Your task to perform on an android device: turn off notifications in google photos Image 0: 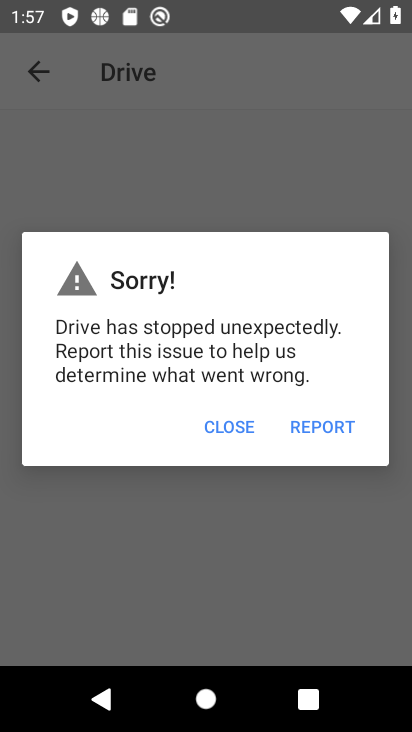
Step 0: press home button
Your task to perform on an android device: turn off notifications in google photos Image 1: 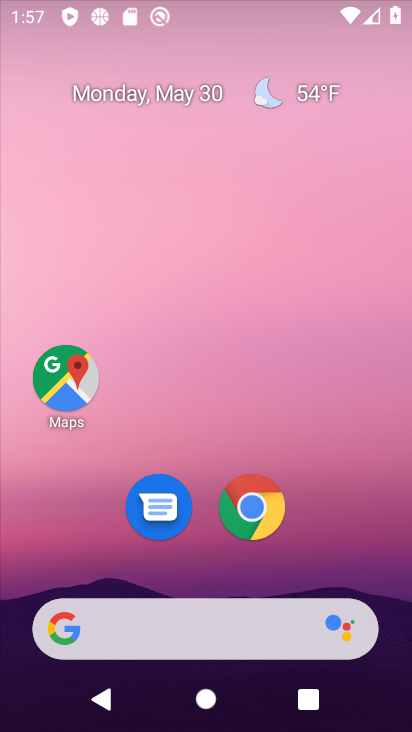
Step 1: drag from (378, 651) to (260, 79)
Your task to perform on an android device: turn off notifications in google photos Image 2: 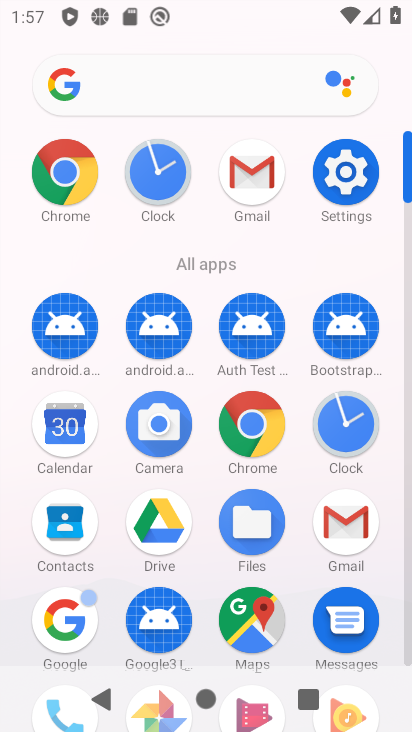
Step 2: drag from (211, 600) to (232, 151)
Your task to perform on an android device: turn off notifications in google photos Image 3: 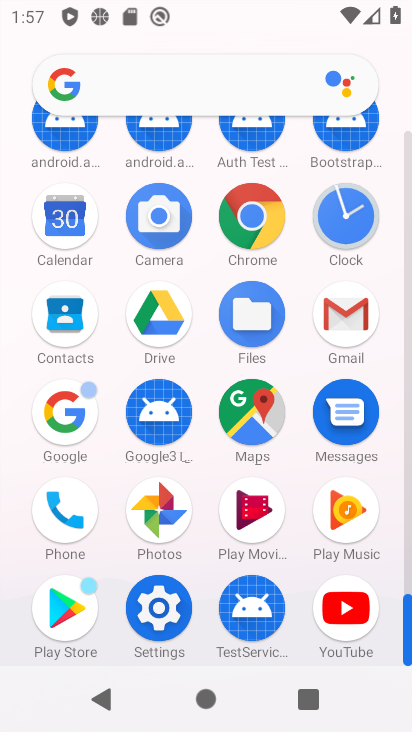
Step 3: click (150, 509)
Your task to perform on an android device: turn off notifications in google photos Image 4: 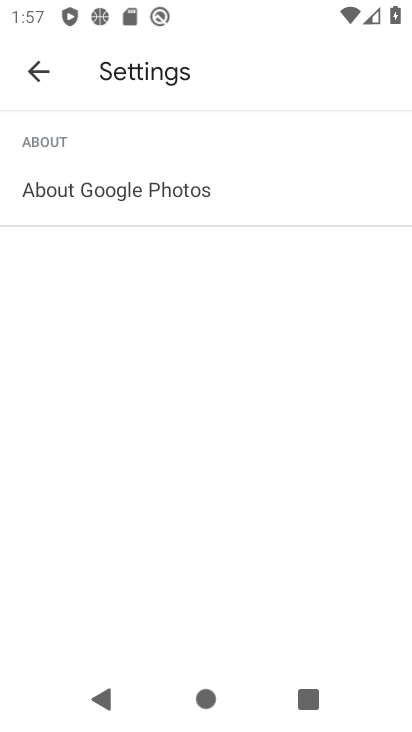
Step 4: press back button
Your task to perform on an android device: turn off notifications in google photos Image 5: 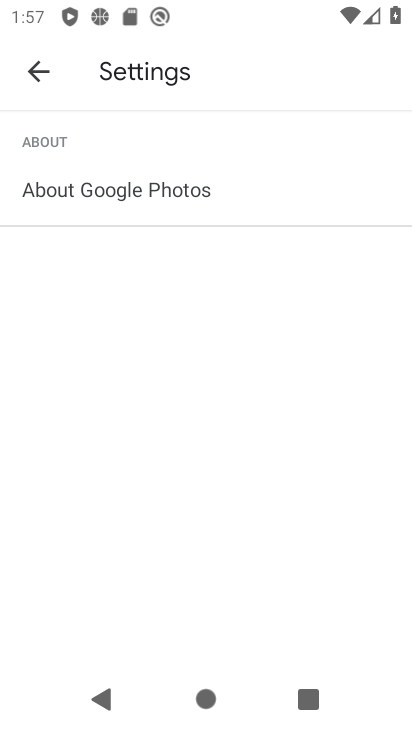
Step 5: press back button
Your task to perform on an android device: turn off notifications in google photos Image 6: 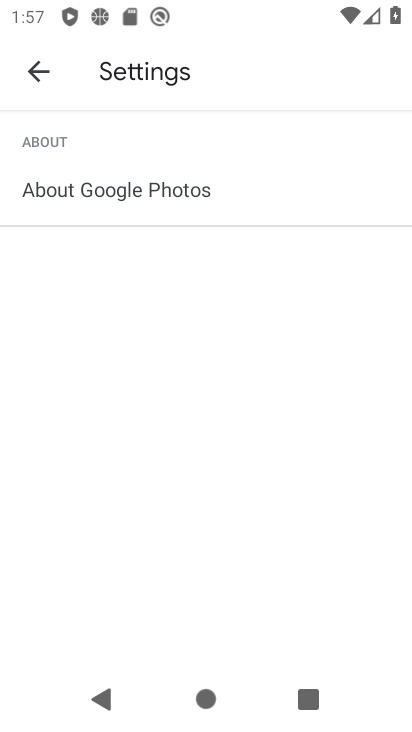
Step 6: press back button
Your task to perform on an android device: turn off notifications in google photos Image 7: 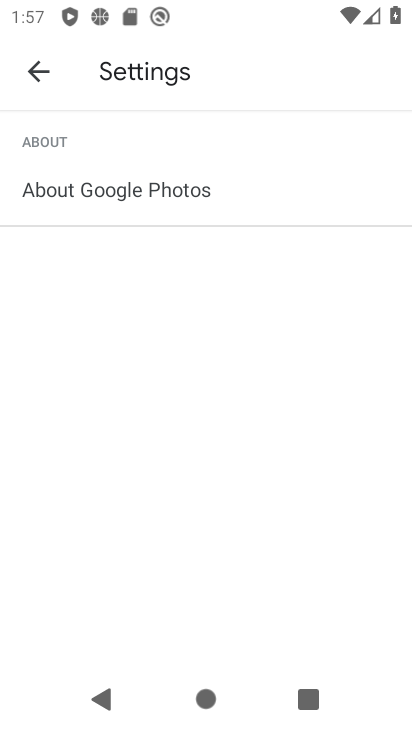
Step 7: press back button
Your task to perform on an android device: turn off notifications in google photos Image 8: 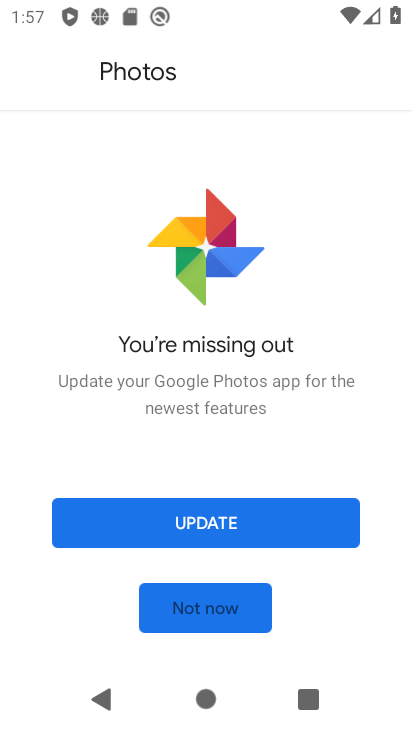
Step 8: click (51, 78)
Your task to perform on an android device: turn off notifications in google photos Image 9: 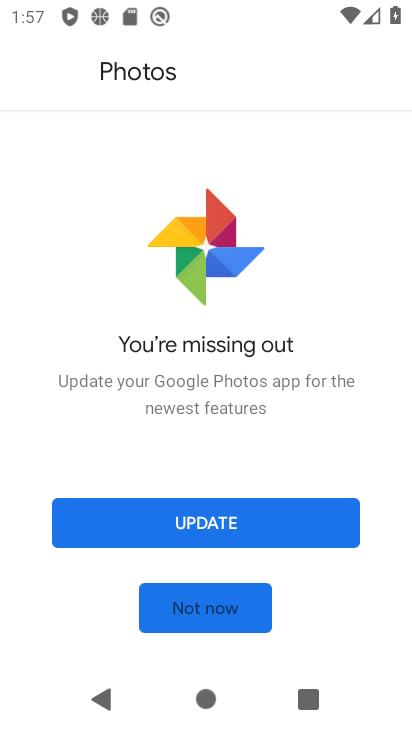
Step 9: click (141, 534)
Your task to perform on an android device: turn off notifications in google photos Image 10: 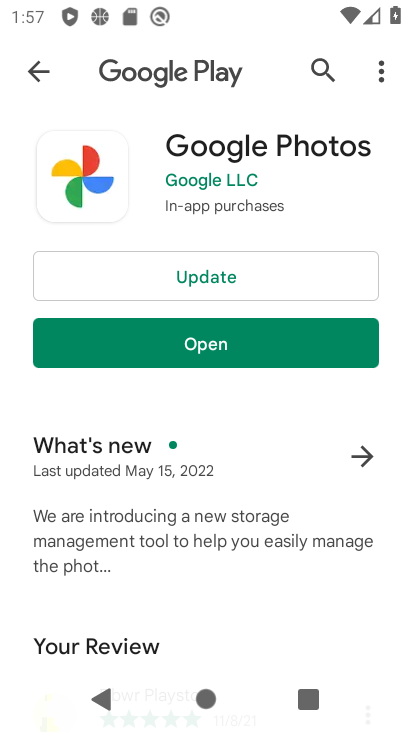
Step 10: click (258, 260)
Your task to perform on an android device: turn off notifications in google photos Image 11: 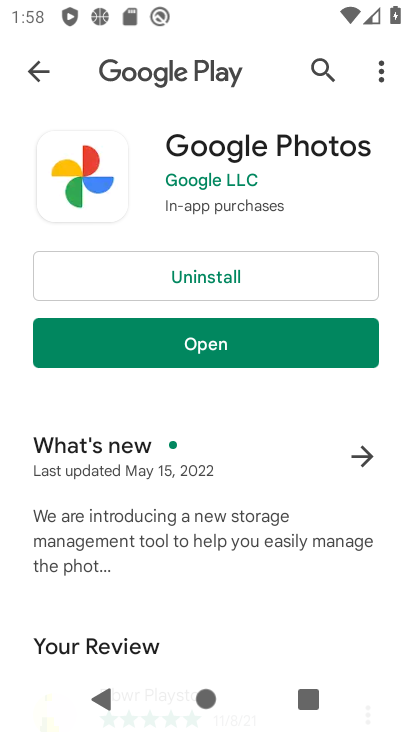
Step 11: click (279, 336)
Your task to perform on an android device: turn off notifications in google photos Image 12: 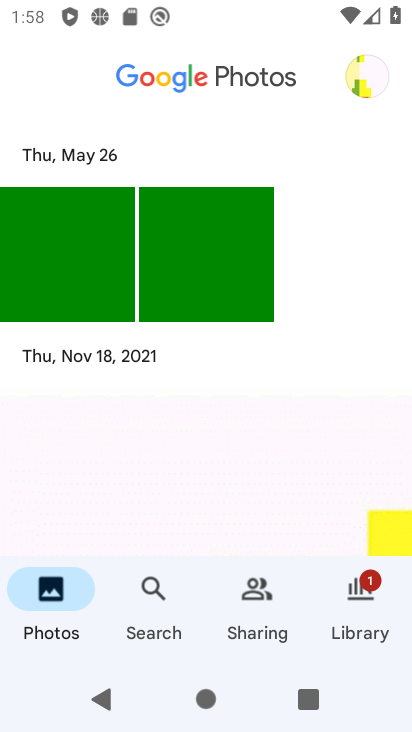
Step 12: click (372, 88)
Your task to perform on an android device: turn off notifications in google photos Image 13: 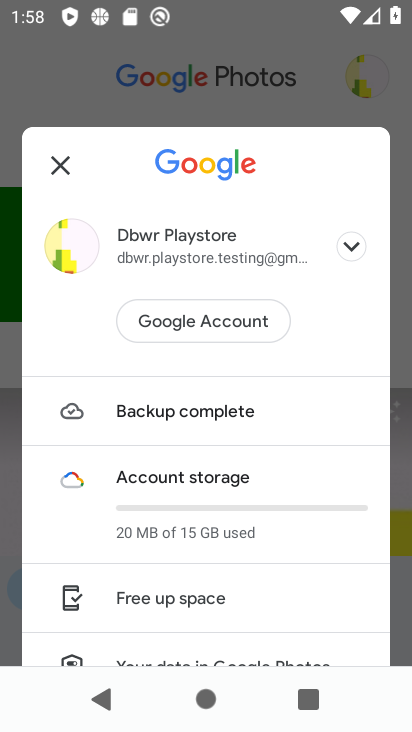
Step 13: drag from (192, 548) to (147, 180)
Your task to perform on an android device: turn off notifications in google photos Image 14: 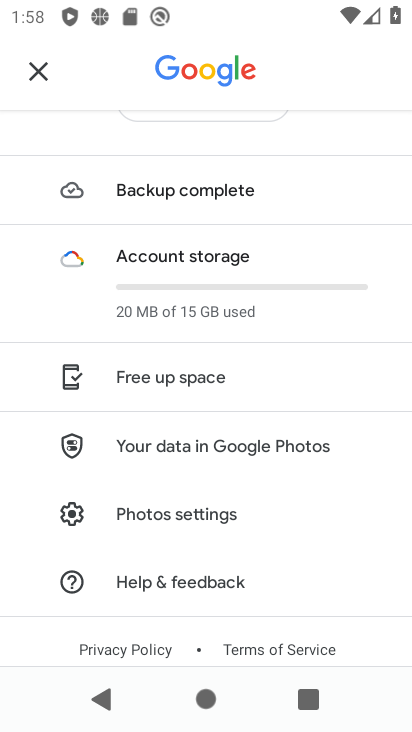
Step 14: click (213, 500)
Your task to perform on an android device: turn off notifications in google photos Image 15: 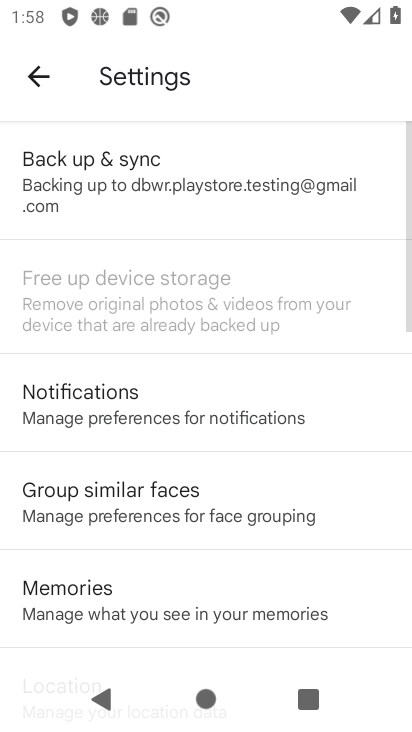
Step 15: click (211, 434)
Your task to perform on an android device: turn off notifications in google photos Image 16: 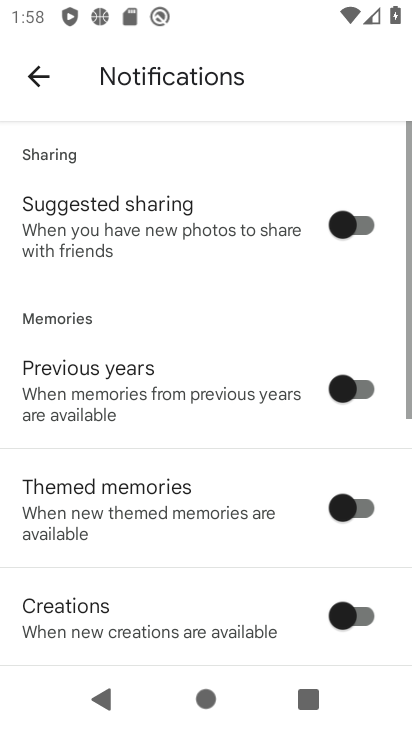
Step 16: task complete